Your task to perform on an android device: turn on wifi Image 0: 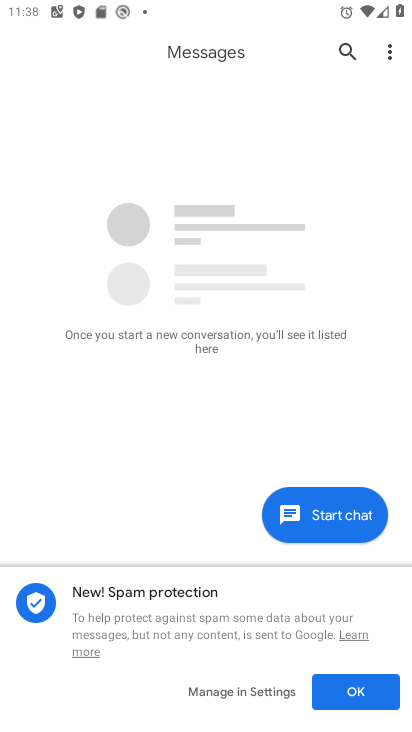
Step 0: drag from (204, 12) to (209, 672)
Your task to perform on an android device: turn on wifi Image 1: 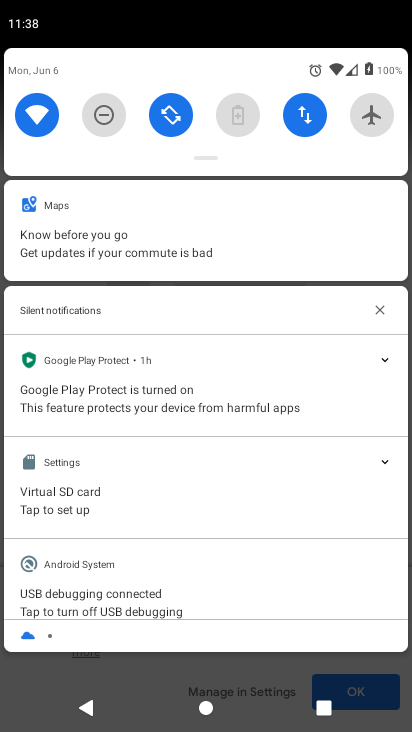
Step 1: task complete